Your task to perform on an android device: allow cookies in the chrome app Image 0: 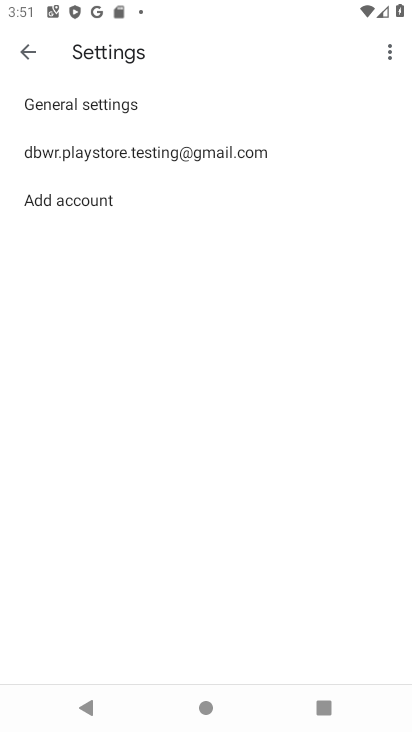
Step 0: press back button
Your task to perform on an android device: allow cookies in the chrome app Image 1: 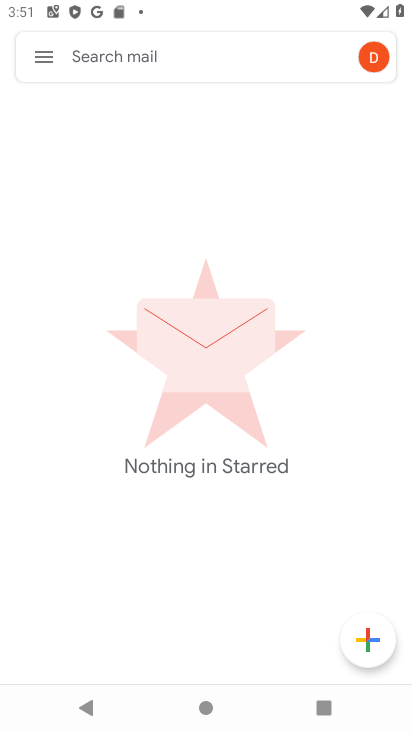
Step 1: press home button
Your task to perform on an android device: allow cookies in the chrome app Image 2: 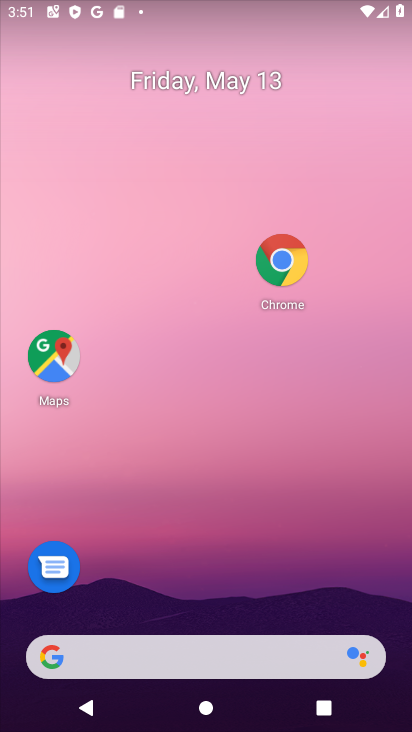
Step 2: drag from (403, 612) to (223, 38)
Your task to perform on an android device: allow cookies in the chrome app Image 3: 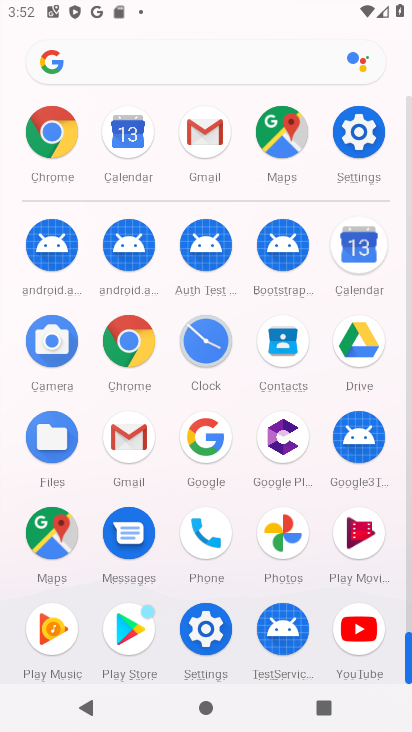
Step 3: click (124, 338)
Your task to perform on an android device: allow cookies in the chrome app Image 4: 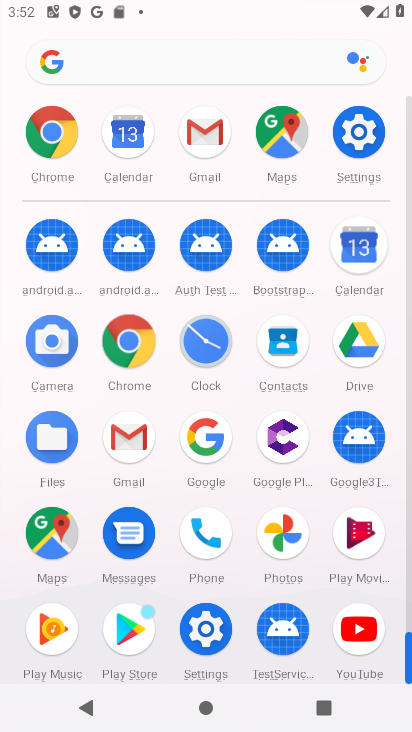
Step 4: click (124, 338)
Your task to perform on an android device: allow cookies in the chrome app Image 5: 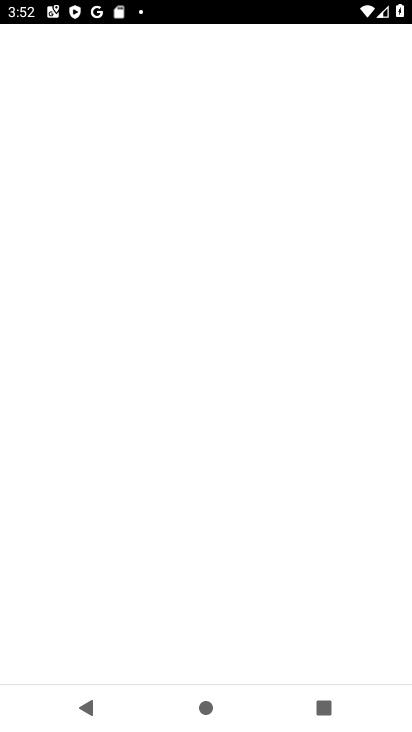
Step 5: click (124, 338)
Your task to perform on an android device: allow cookies in the chrome app Image 6: 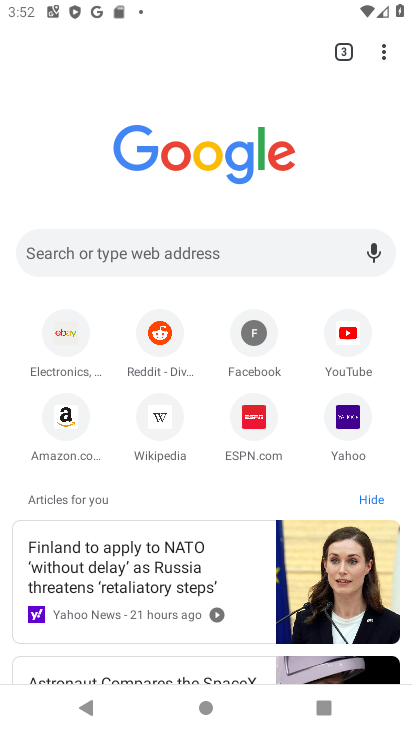
Step 6: drag from (385, 59) to (200, 432)
Your task to perform on an android device: allow cookies in the chrome app Image 7: 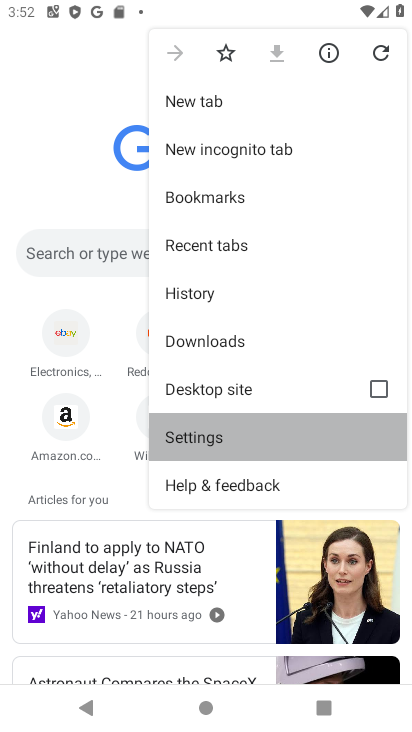
Step 7: click (198, 423)
Your task to perform on an android device: allow cookies in the chrome app Image 8: 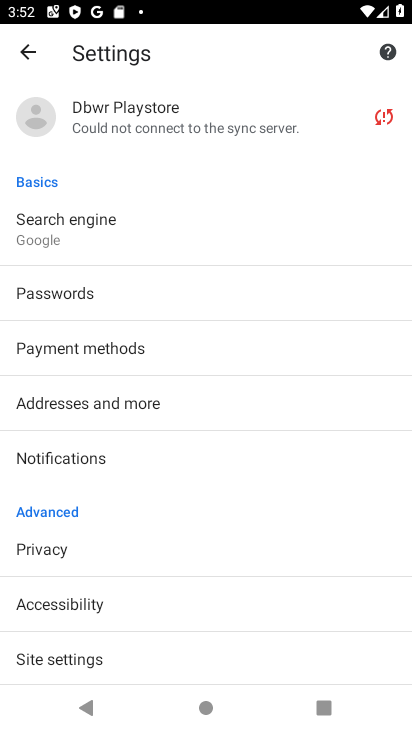
Step 8: drag from (98, 484) to (94, 176)
Your task to perform on an android device: allow cookies in the chrome app Image 9: 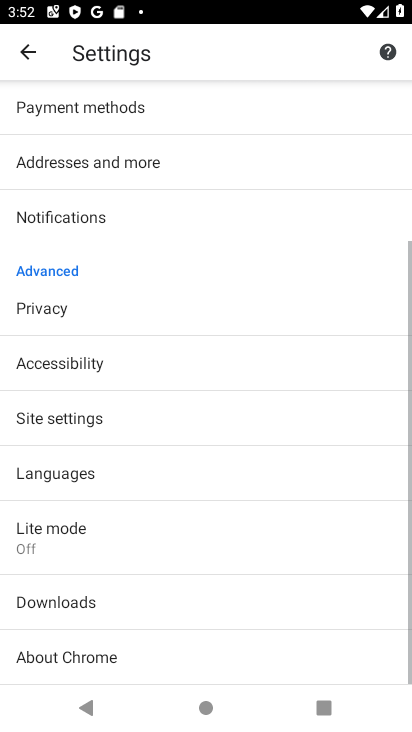
Step 9: click (61, 418)
Your task to perform on an android device: allow cookies in the chrome app Image 10: 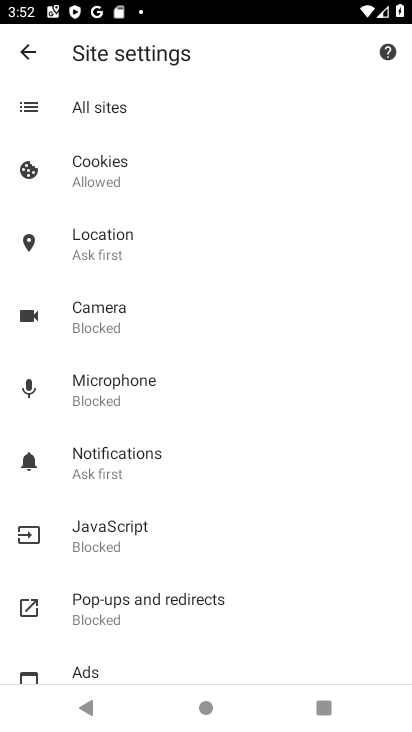
Step 10: click (107, 146)
Your task to perform on an android device: allow cookies in the chrome app Image 11: 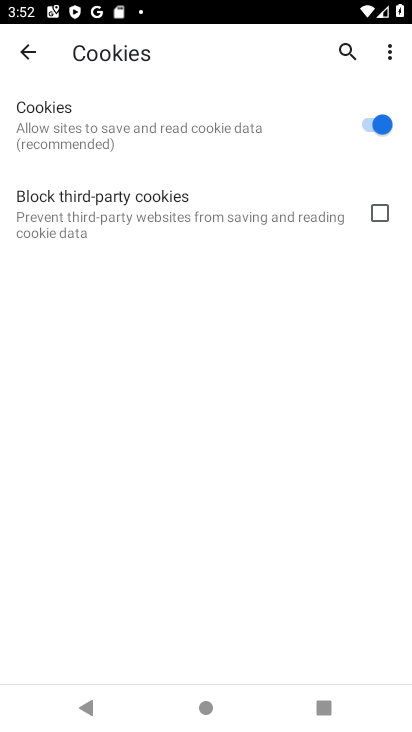
Step 11: task complete